Your task to perform on an android device: Open the web browser Image 0: 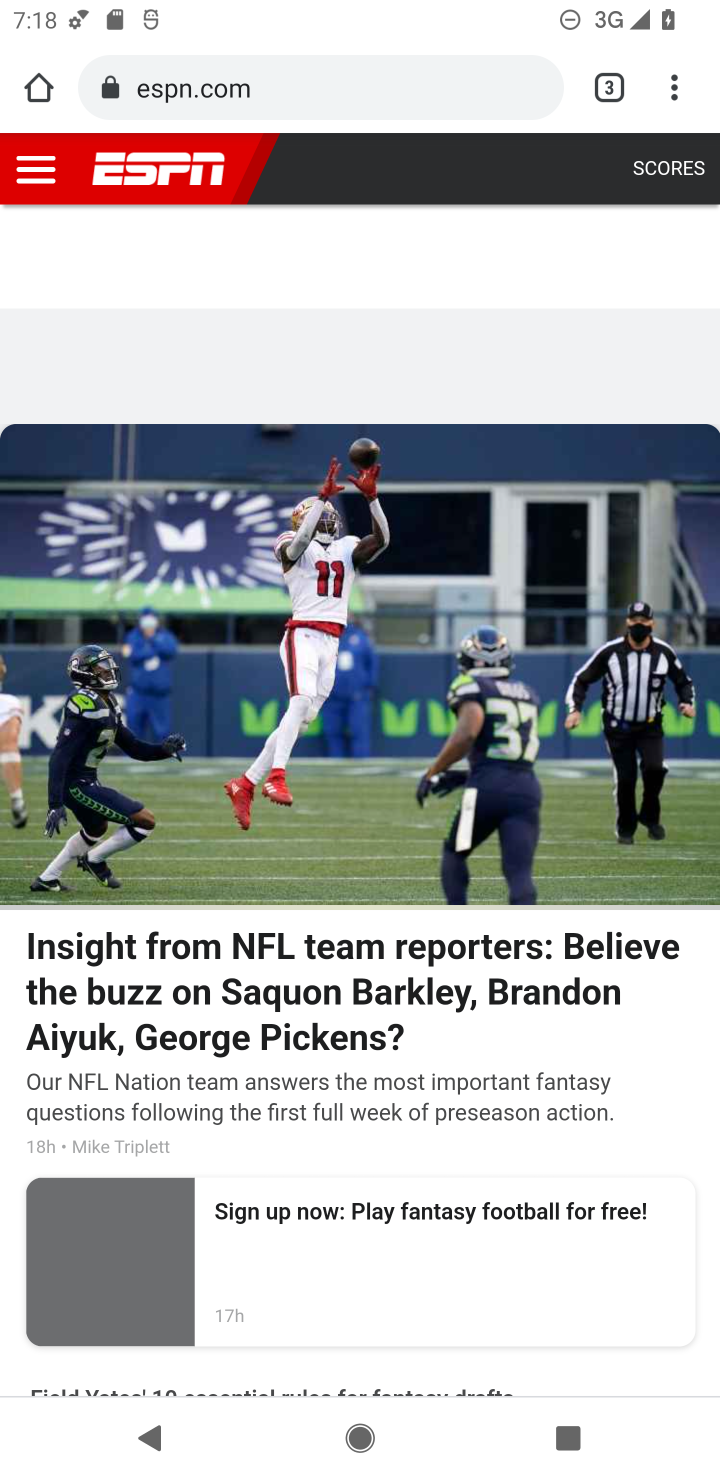
Step 0: press home button
Your task to perform on an android device: Open the web browser Image 1: 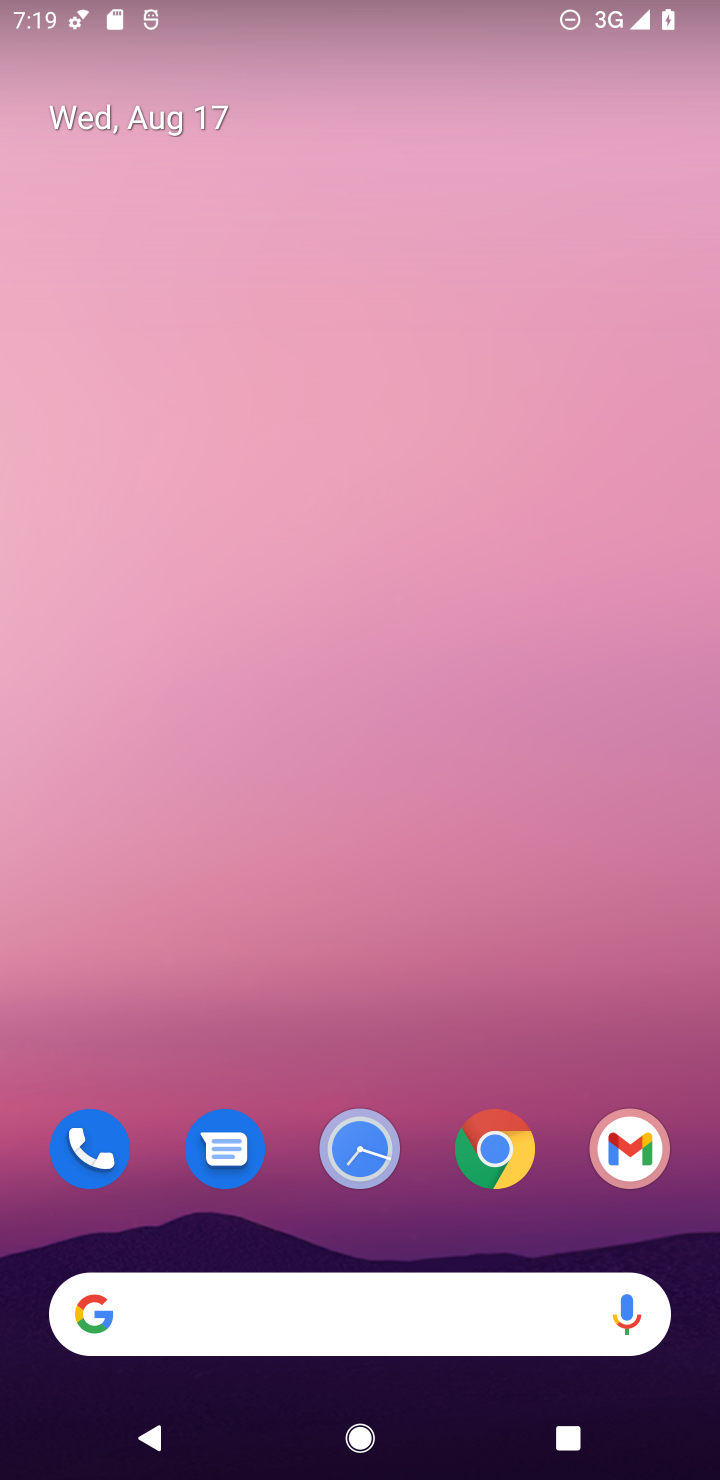
Step 1: drag from (431, 1073) to (408, 98)
Your task to perform on an android device: Open the web browser Image 2: 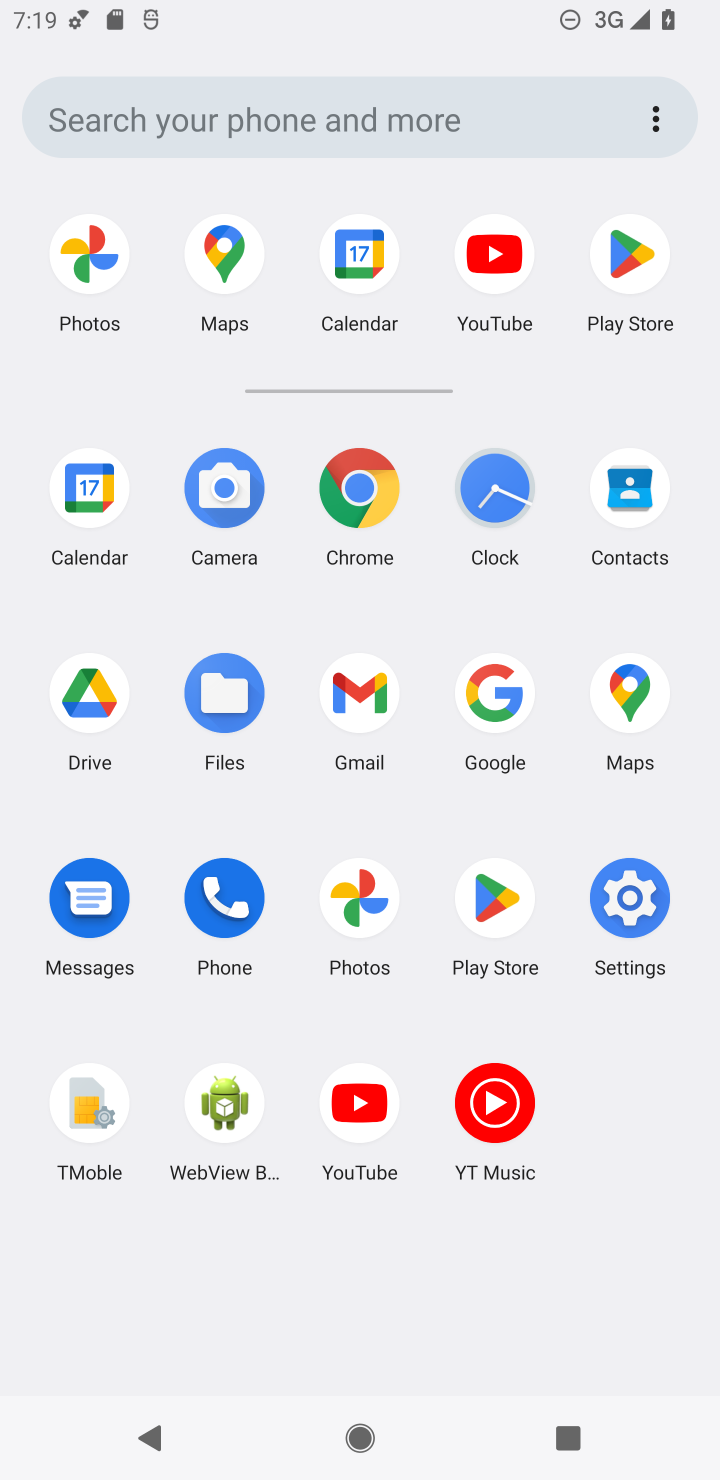
Step 2: click (357, 489)
Your task to perform on an android device: Open the web browser Image 3: 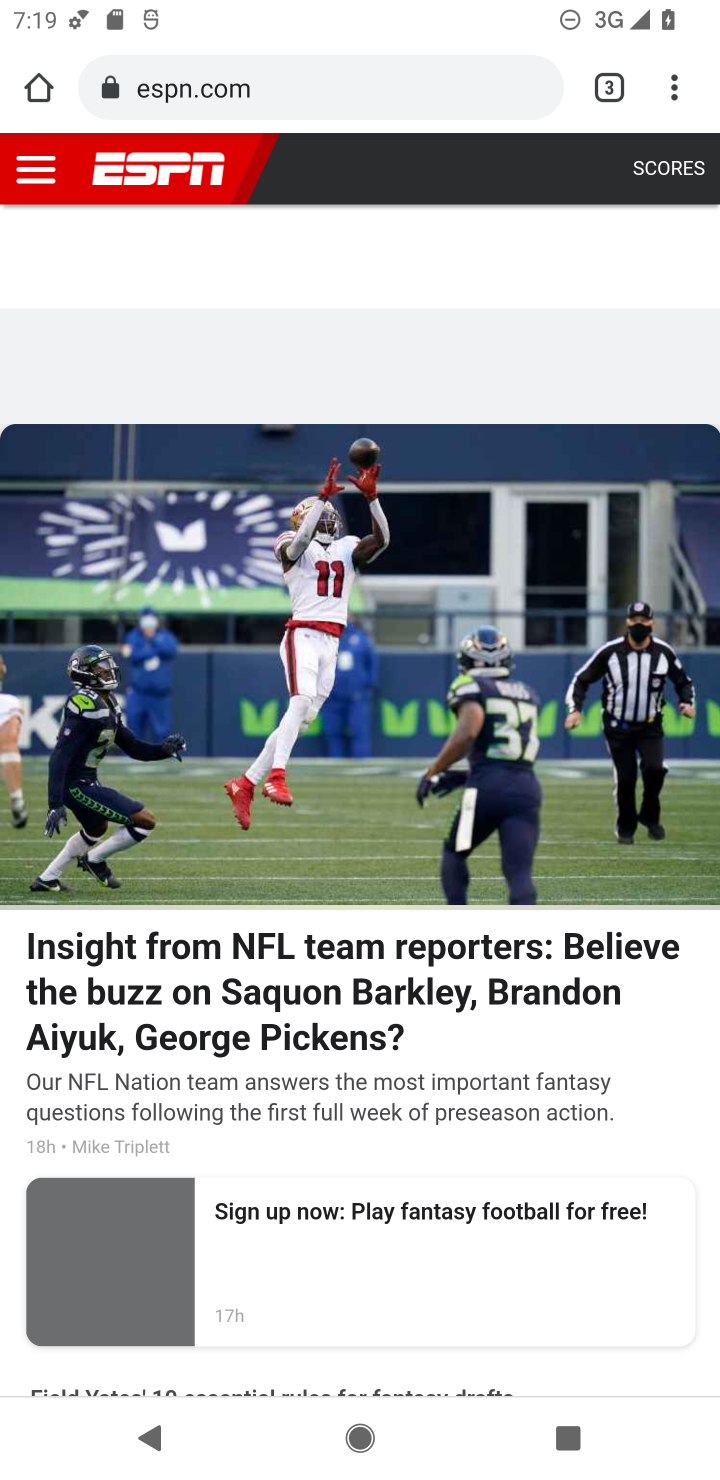
Step 3: task complete